Your task to perform on an android device: Check the news Image 0: 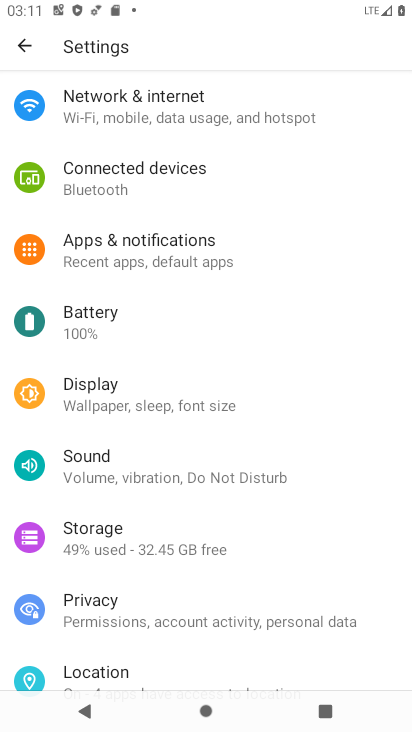
Step 0: press home button
Your task to perform on an android device: Check the news Image 1: 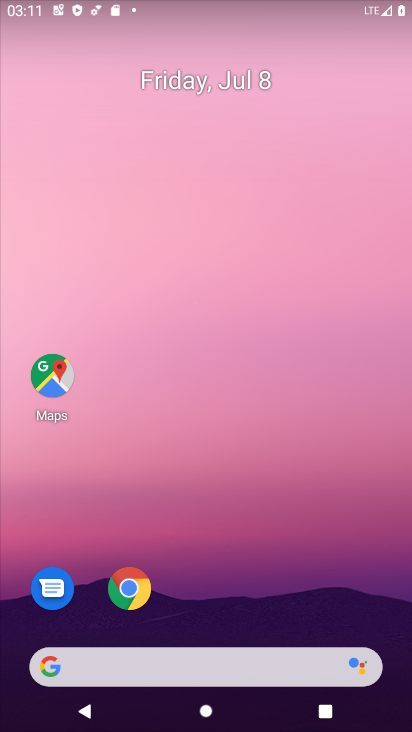
Step 1: click (169, 673)
Your task to perform on an android device: Check the news Image 2: 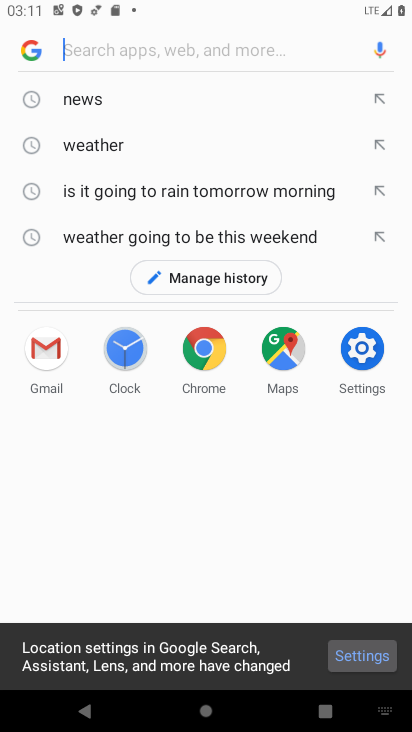
Step 2: click (83, 103)
Your task to perform on an android device: Check the news Image 3: 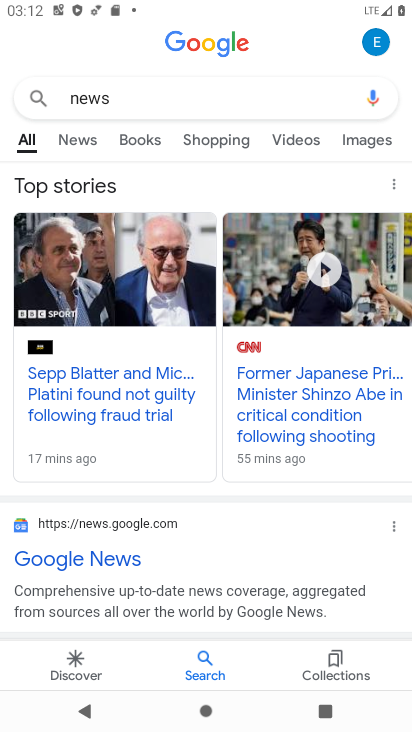
Step 3: task complete